Your task to perform on an android device: toggle notification dots Image 0: 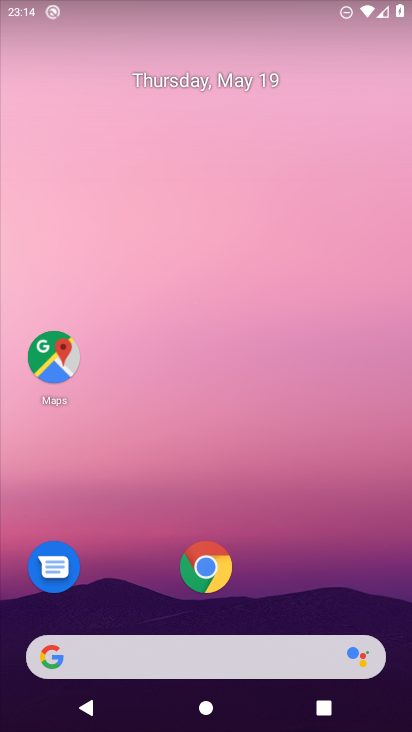
Step 0: drag from (276, 601) to (280, 144)
Your task to perform on an android device: toggle notification dots Image 1: 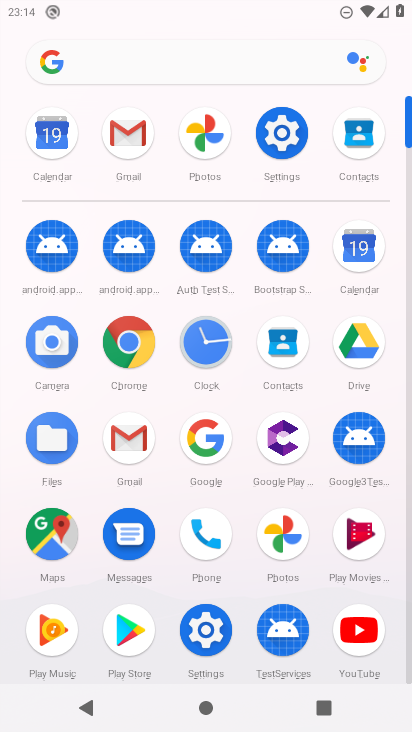
Step 1: click (212, 629)
Your task to perform on an android device: toggle notification dots Image 2: 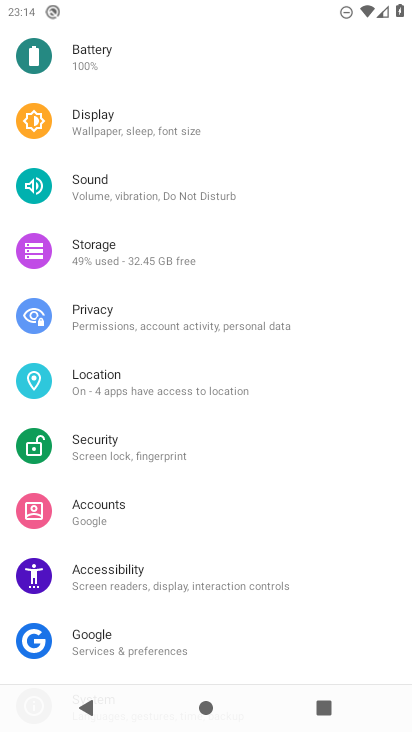
Step 2: drag from (114, 111) to (121, 538)
Your task to perform on an android device: toggle notification dots Image 3: 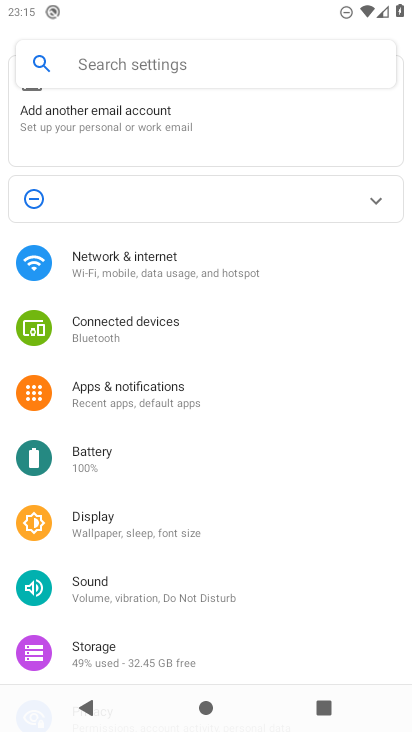
Step 3: click (143, 388)
Your task to perform on an android device: toggle notification dots Image 4: 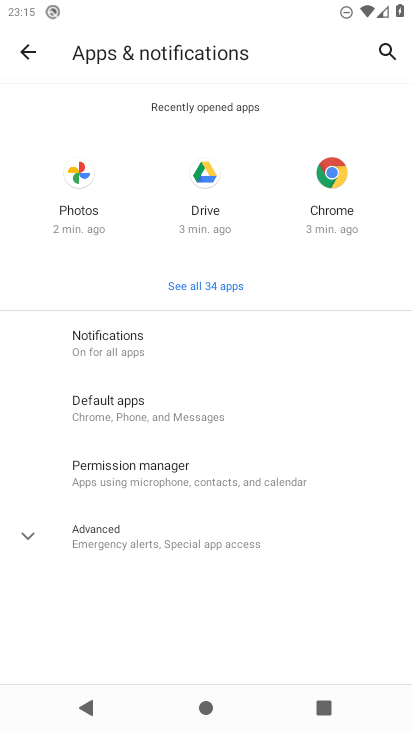
Step 4: click (150, 356)
Your task to perform on an android device: toggle notification dots Image 5: 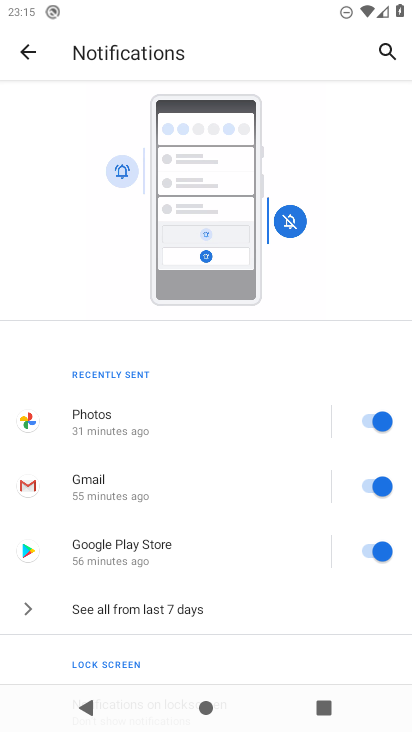
Step 5: drag from (193, 593) to (184, 352)
Your task to perform on an android device: toggle notification dots Image 6: 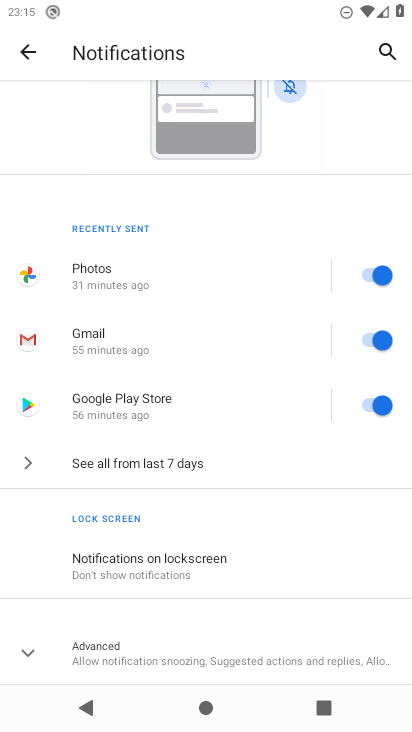
Step 6: click (109, 650)
Your task to perform on an android device: toggle notification dots Image 7: 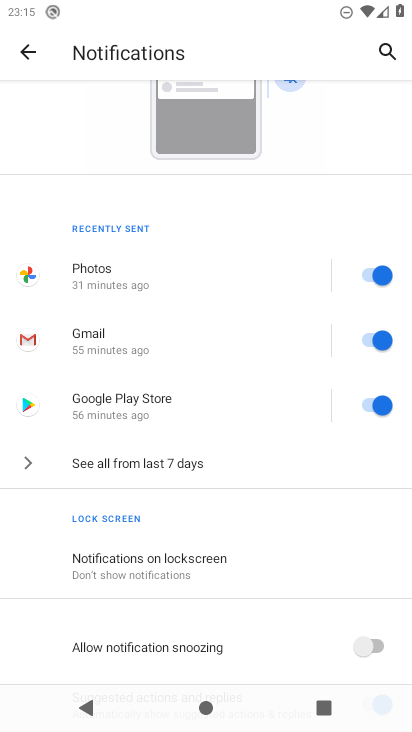
Step 7: drag from (148, 630) to (164, 183)
Your task to perform on an android device: toggle notification dots Image 8: 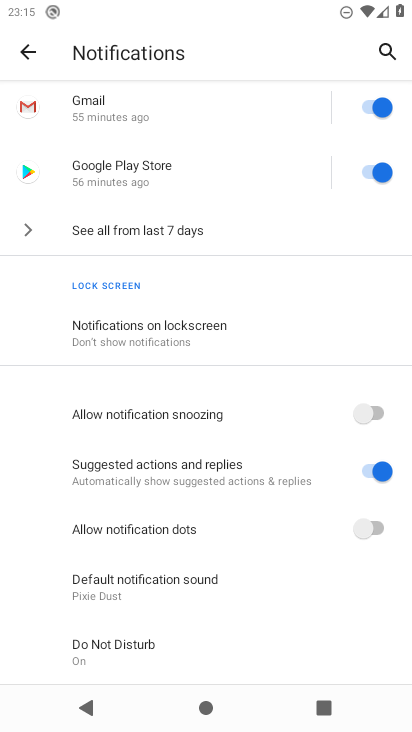
Step 8: click (366, 526)
Your task to perform on an android device: toggle notification dots Image 9: 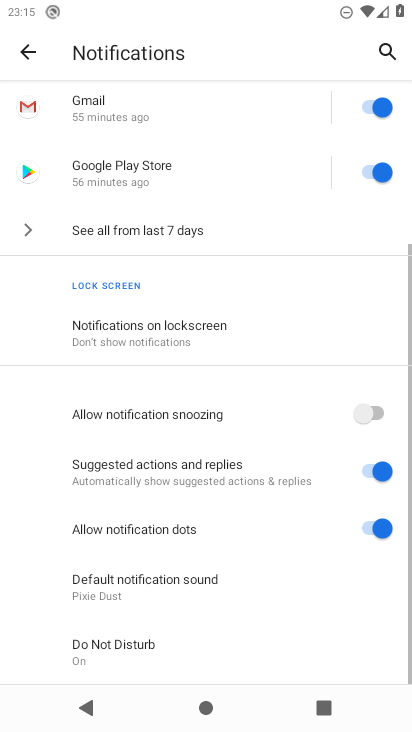
Step 9: task complete